Your task to perform on an android device: Toggle the flashlight Image 0: 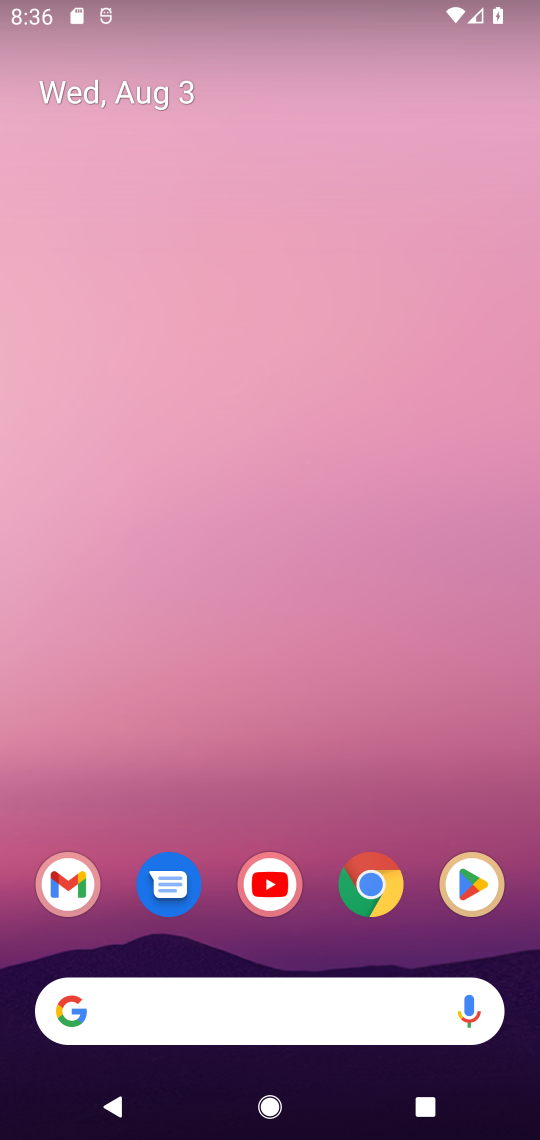
Step 0: drag from (193, 9) to (227, 482)
Your task to perform on an android device: Toggle the flashlight Image 1: 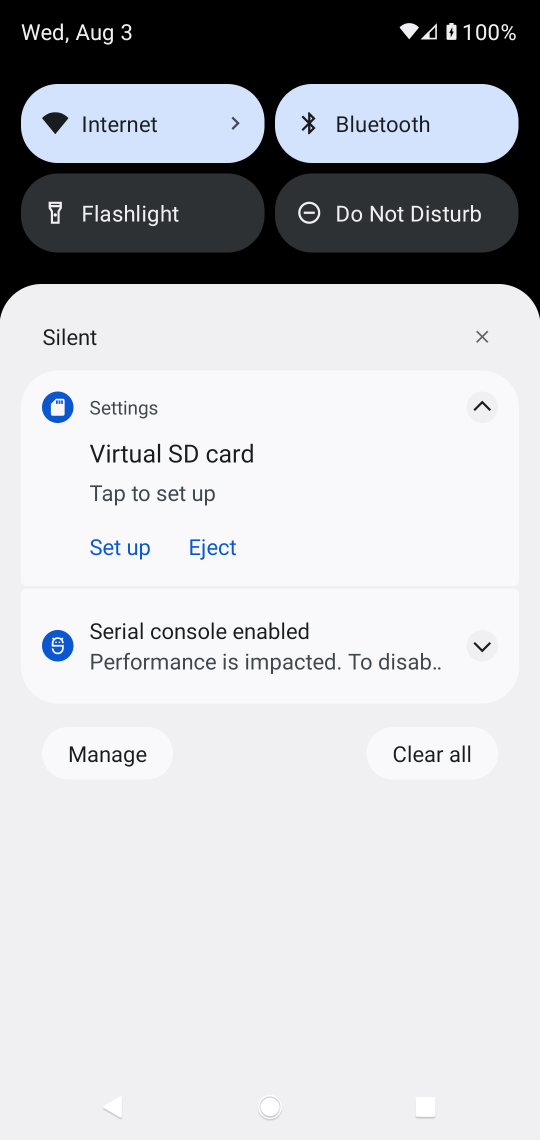
Step 1: drag from (227, 11) to (303, 325)
Your task to perform on an android device: Toggle the flashlight Image 2: 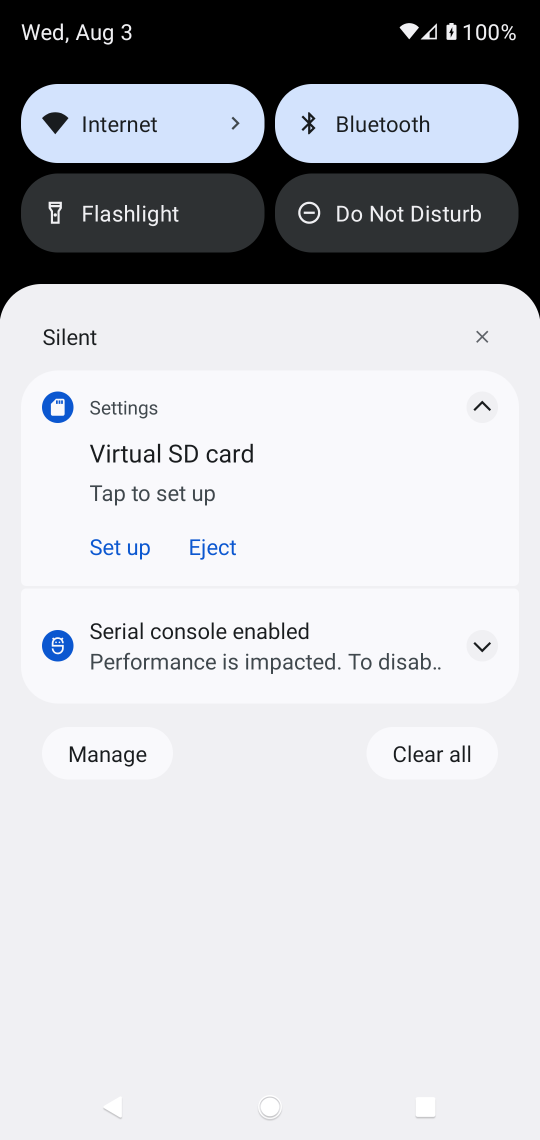
Step 2: drag from (416, 24) to (405, 509)
Your task to perform on an android device: Toggle the flashlight Image 3: 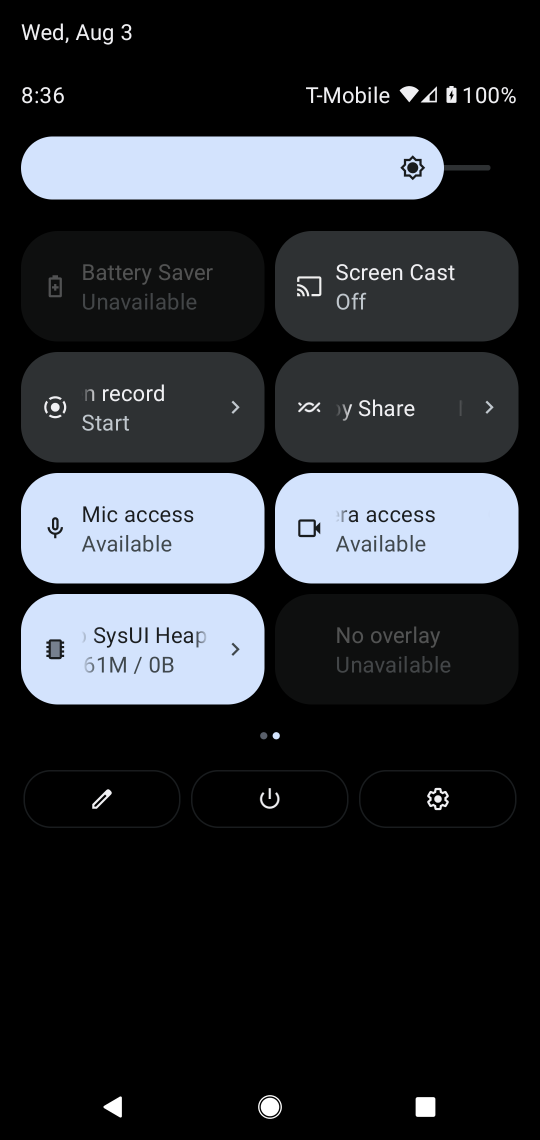
Step 3: drag from (327, 664) to (532, 656)
Your task to perform on an android device: Toggle the flashlight Image 4: 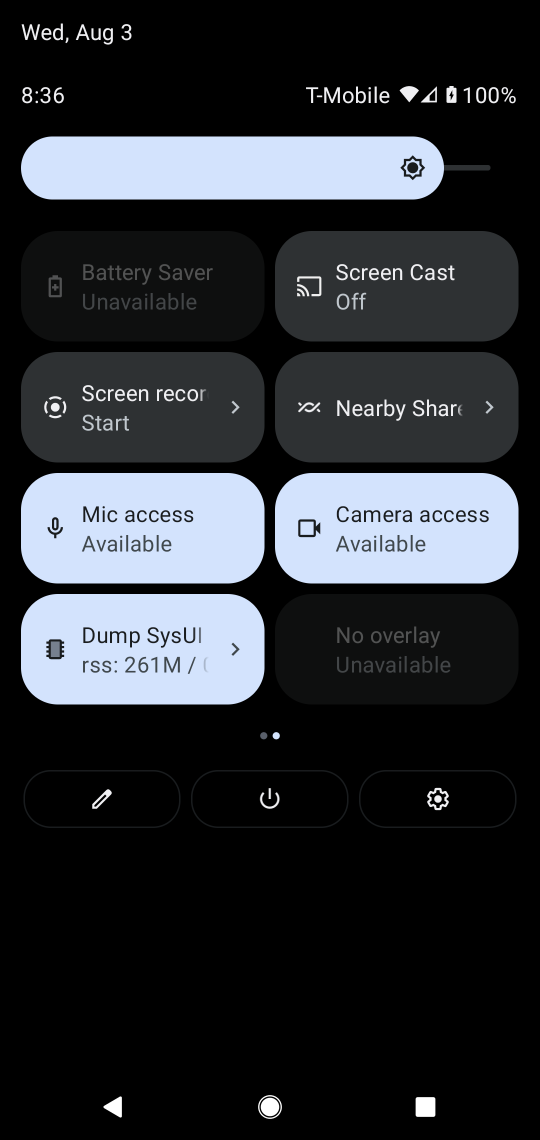
Step 4: drag from (55, 723) to (531, 629)
Your task to perform on an android device: Toggle the flashlight Image 5: 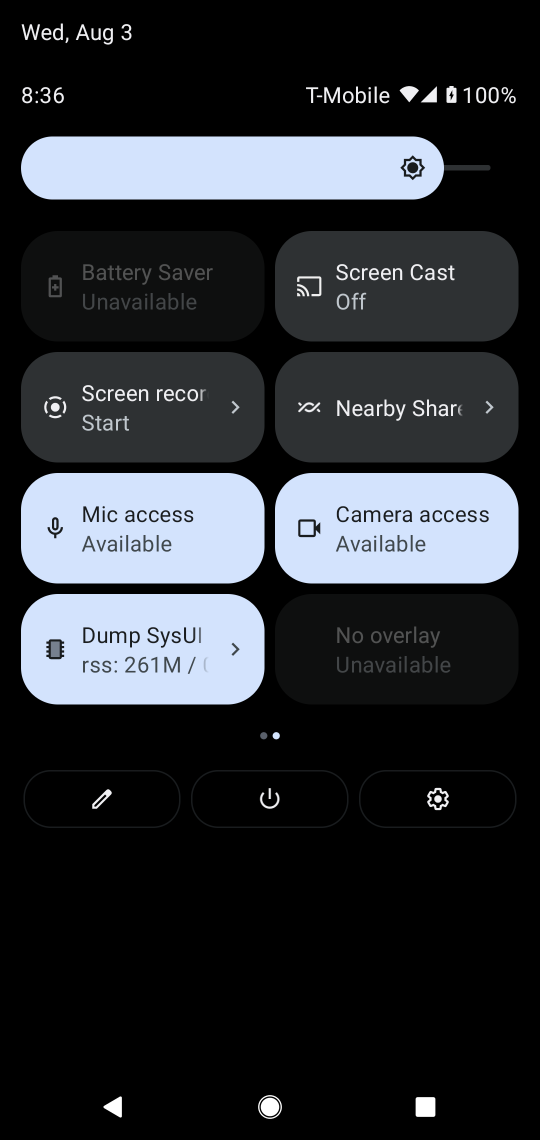
Step 5: drag from (272, 594) to (515, 618)
Your task to perform on an android device: Toggle the flashlight Image 6: 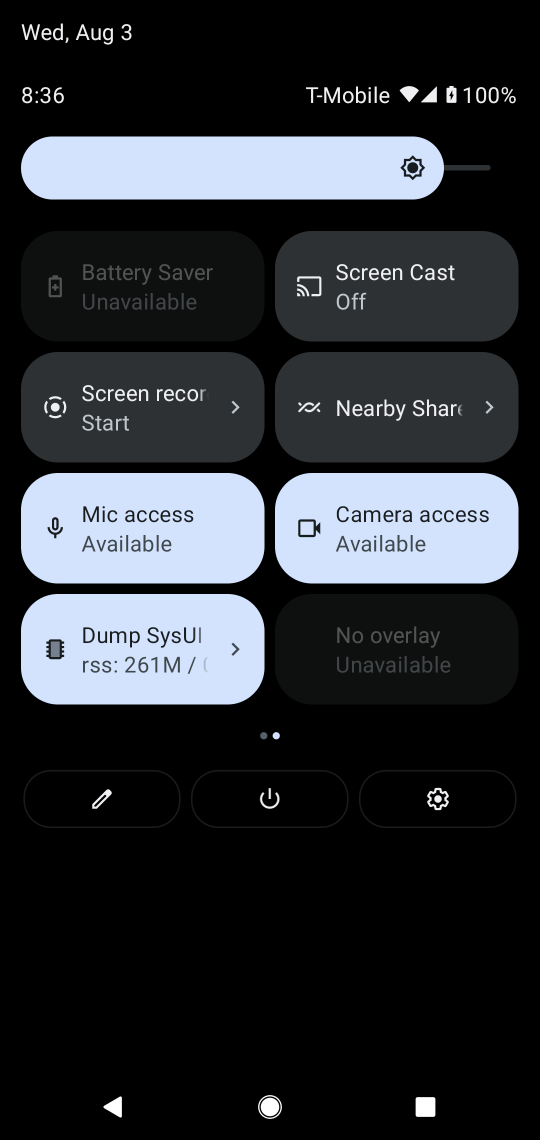
Step 6: drag from (21, 322) to (525, 413)
Your task to perform on an android device: Toggle the flashlight Image 7: 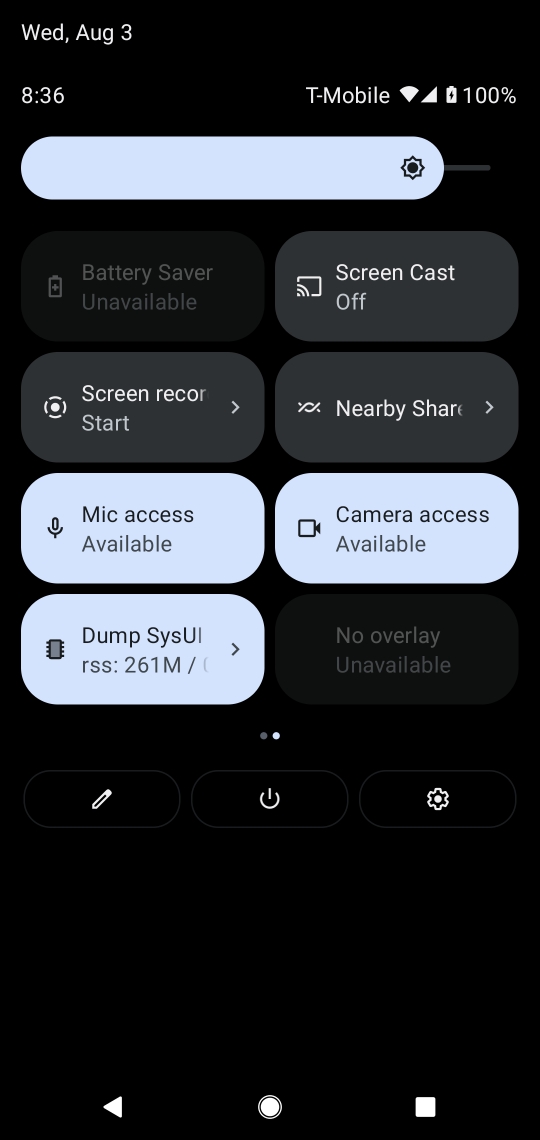
Step 7: drag from (31, 401) to (512, 488)
Your task to perform on an android device: Toggle the flashlight Image 8: 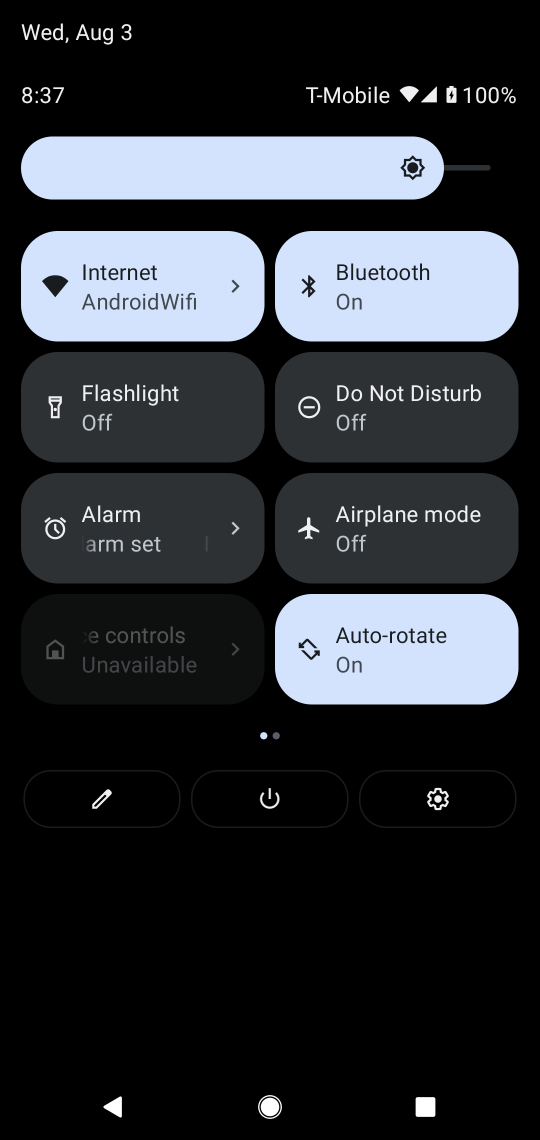
Step 8: click (82, 397)
Your task to perform on an android device: Toggle the flashlight Image 9: 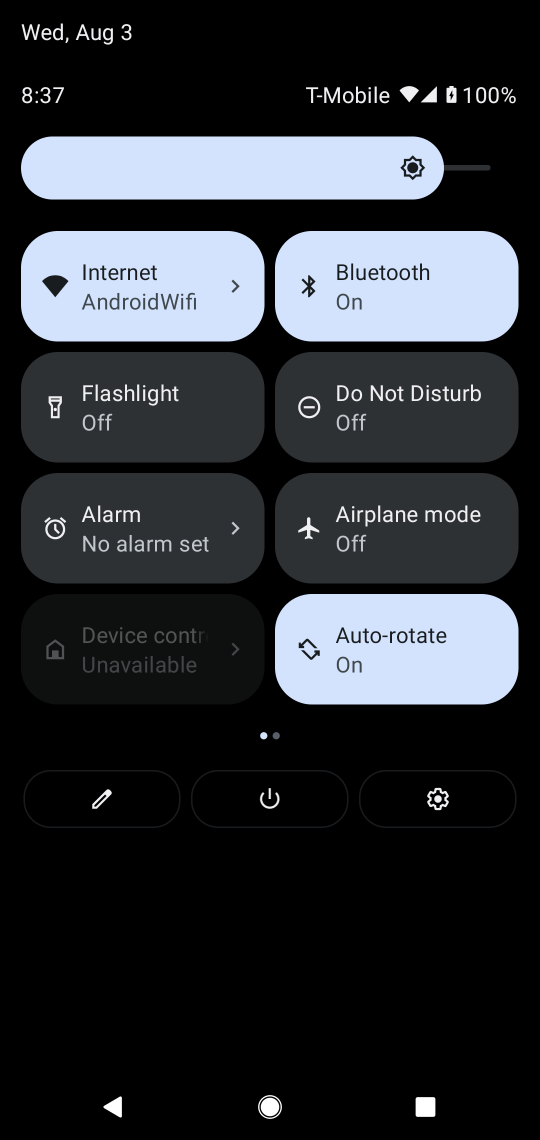
Step 9: click (176, 430)
Your task to perform on an android device: Toggle the flashlight Image 10: 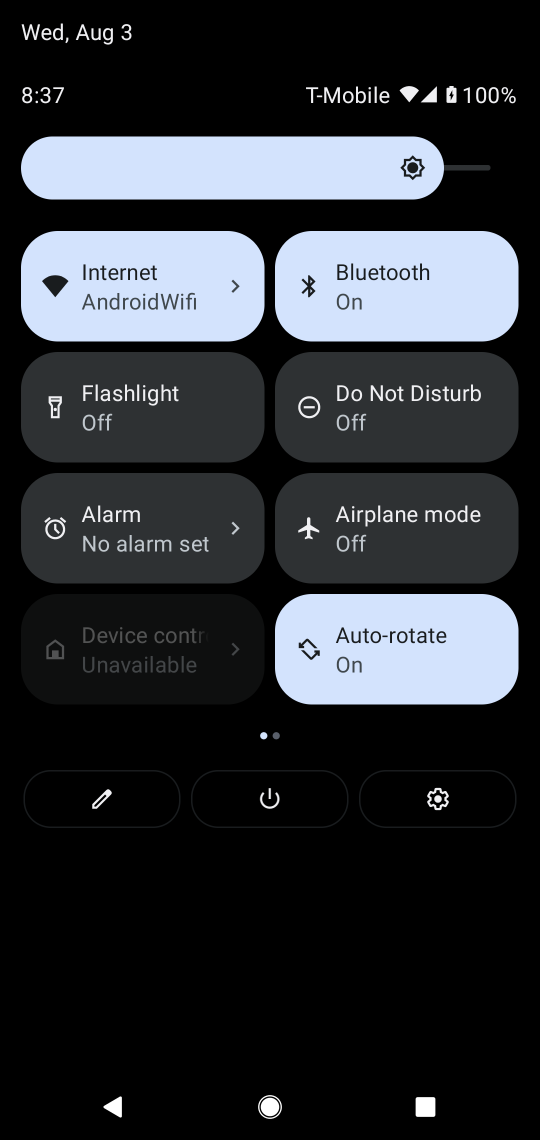
Step 10: task complete